Your task to perform on an android device: What's the weather going to be tomorrow? Image 0: 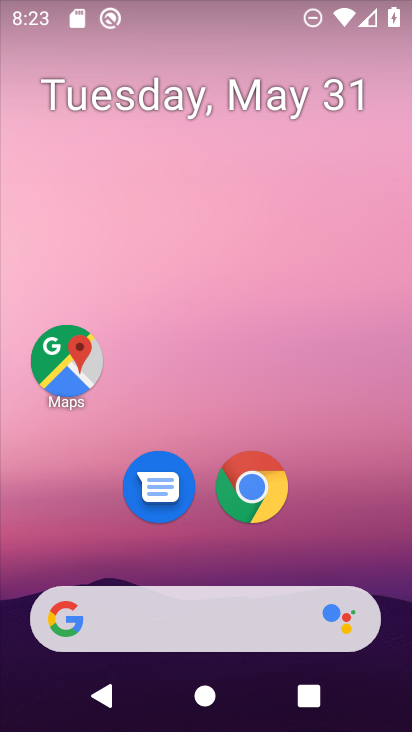
Step 0: click (208, 6)
Your task to perform on an android device: What's the weather going to be tomorrow? Image 1: 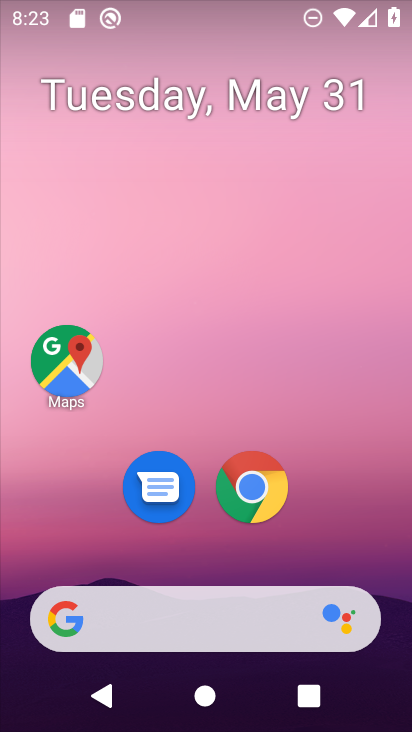
Step 1: click (250, 638)
Your task to perform on an android device: What's the weather going to be tomorrow? Image 2: 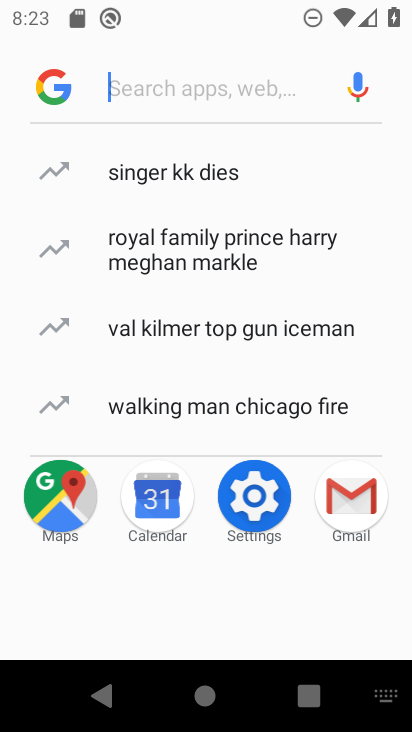
Step 2: type "weather"
Your task to perform on an android device: What's the weather going to be tomorrow? Image 3: 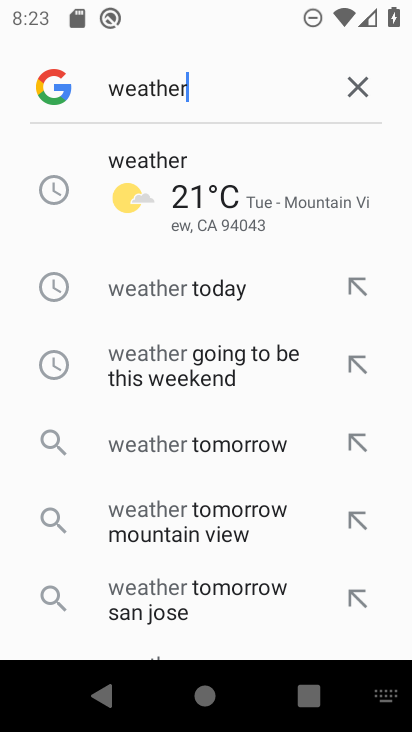
Step 3: click (221, 445)
Your task to perform on an android device: What's the weather going to be tomorrow? Image 4: 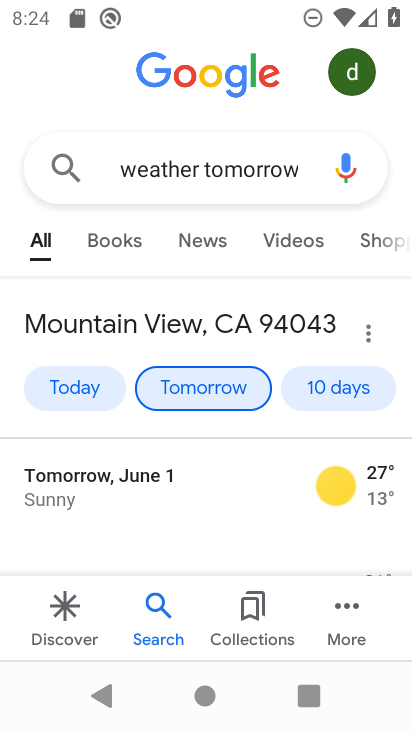
Step 4: task complete